Your task to perform on an android device: Open sound settings Image 0: 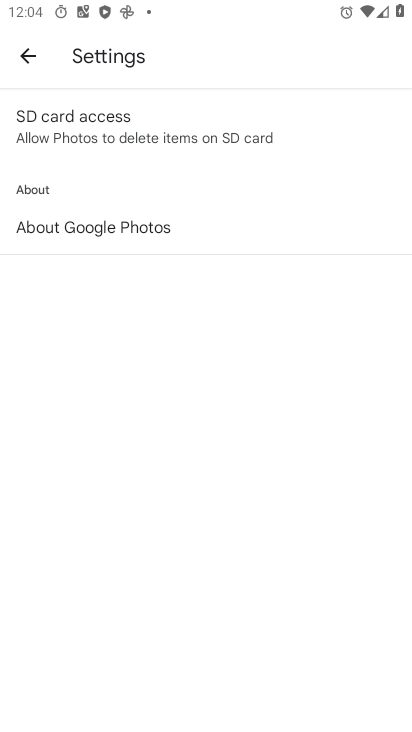
Step 0: press home button
Your task to perform on an android device: Open sound settings Image 1: 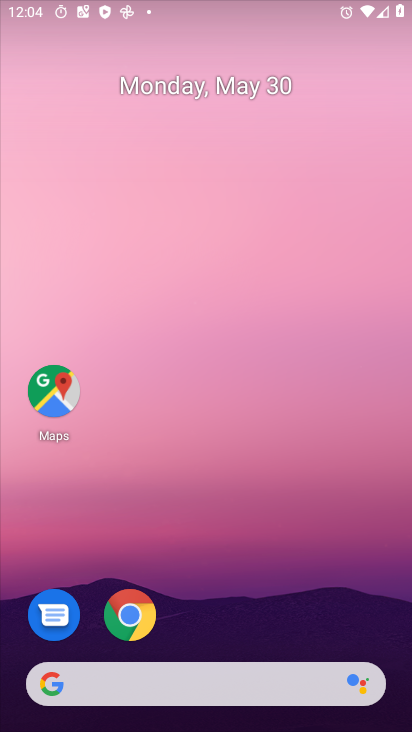
Step 1: drag from (208, 605) to (263, 132)
Your task to perform on an android device: Open sound settings Image 2: 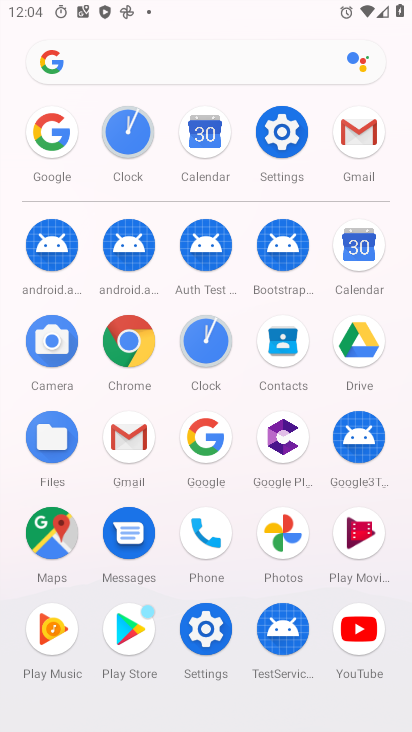
Step 2: click (279, 124)
Your task to perform on an android device: Open sound settings Image 3: 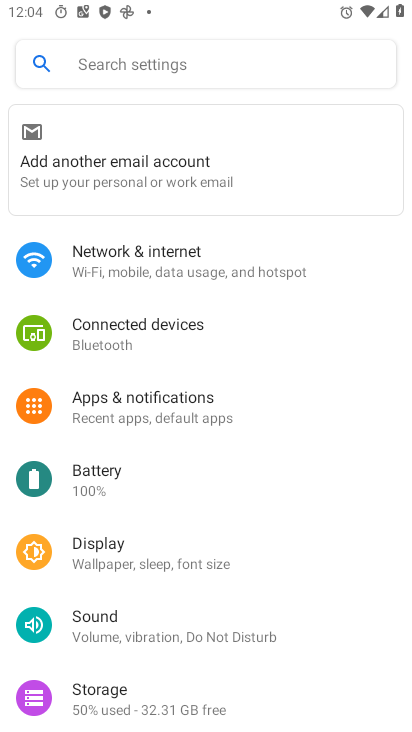
Step 3: click (113, 639)
Your task to perform on an android device: Open sound settings Image 4: 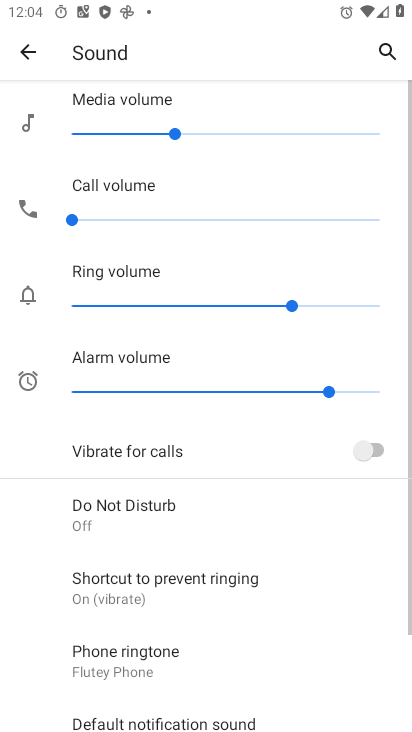
Step 4: task complete